Your task to perform on an android device: Set the phone to "Do not disturb". Image 0: 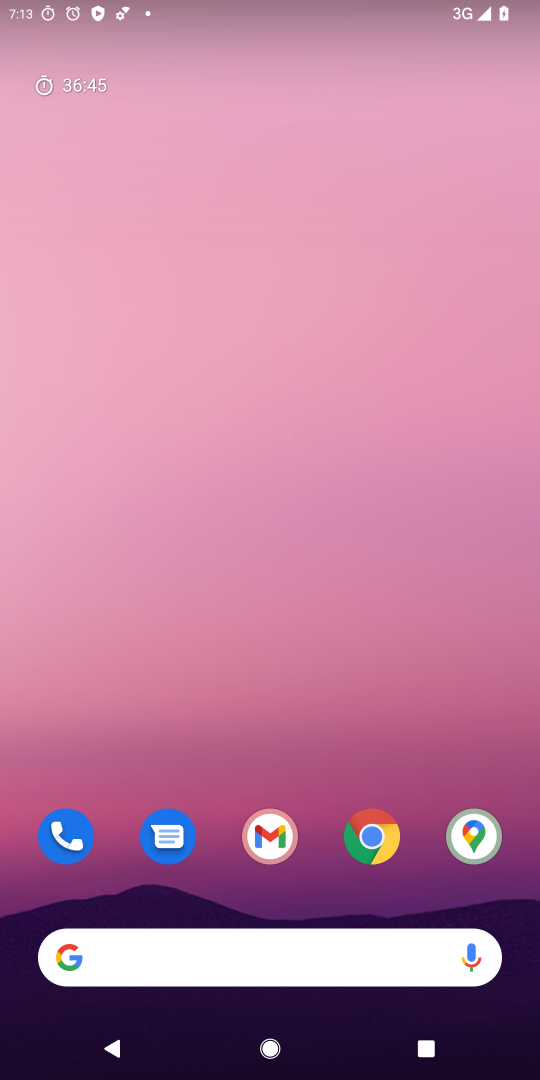
Step 0: drag from (315, 791) to (224, 8)
Your task to perform on an android device: Set the phone to "Do not disturb". Image 1: 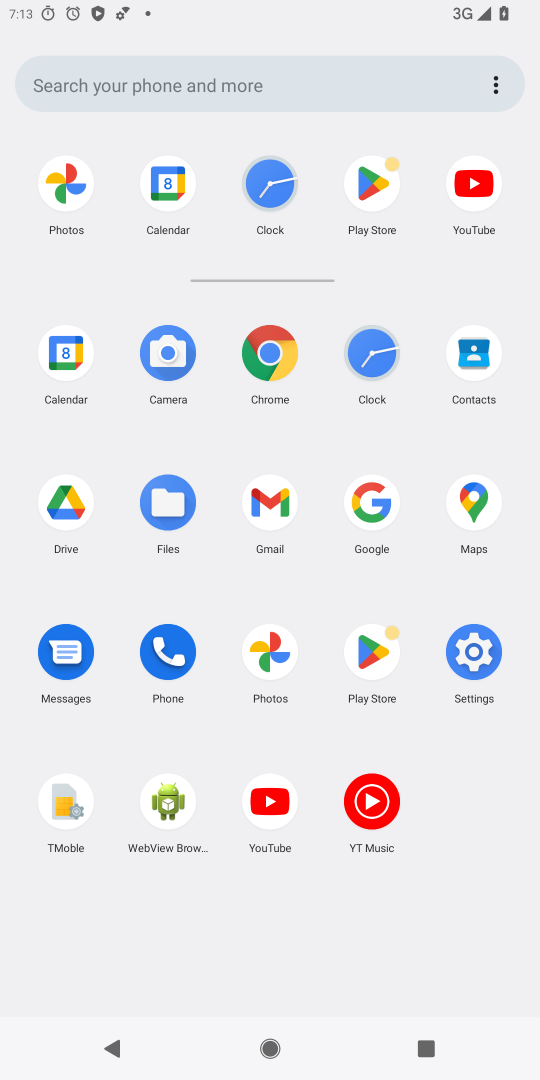
Step 1: click (476, 666)
Your task to perform on an android device: Set the phone to "Do not disturb". Image 2: 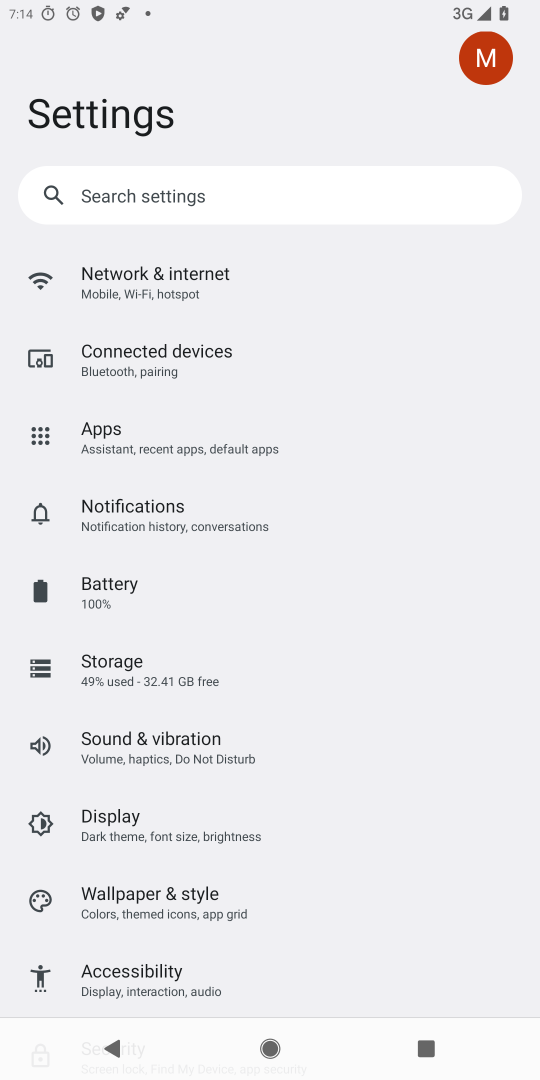
Step 2: click (236, 746)
Your task to perform on an android device: Set the phone to "Do not disturb". Image 3: 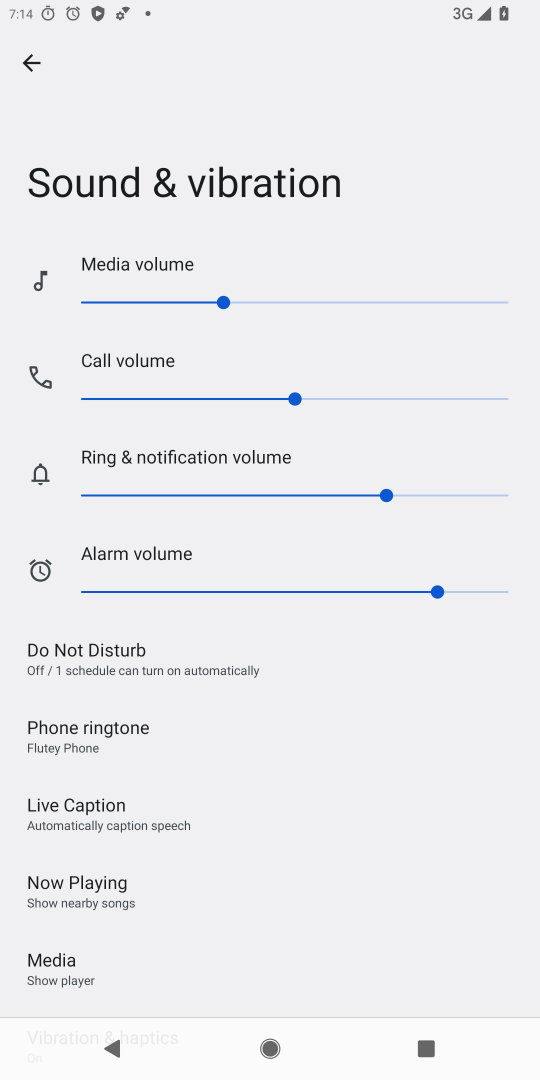
Step 3: click (185, 660)
Your task to perform on an android device: Set the phone to "Do not disturb". Image 4: 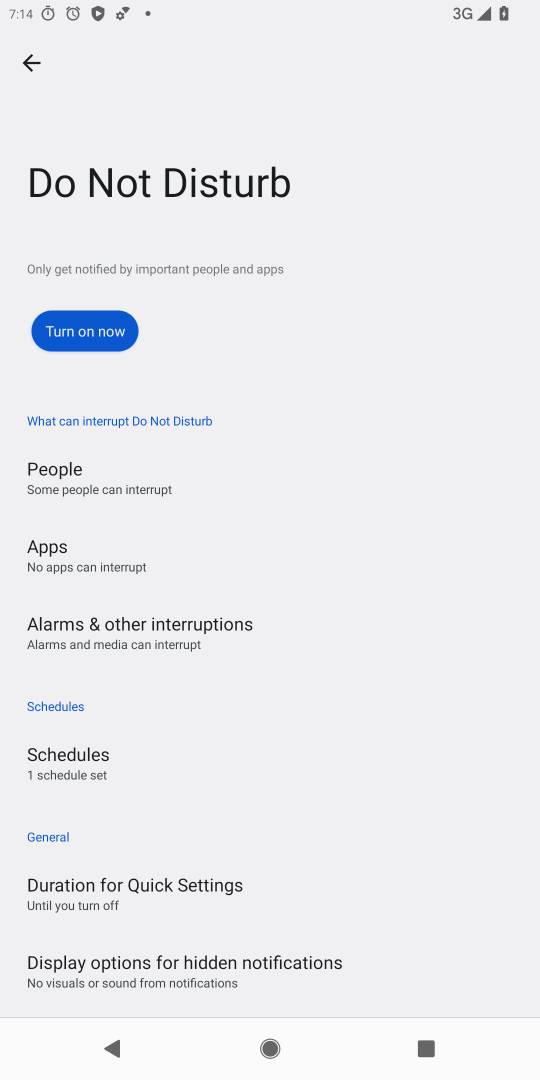
Step 4: click (120, 349)
Your task to perform on an android device: Set the phone to "Do not disturb". Image 5: 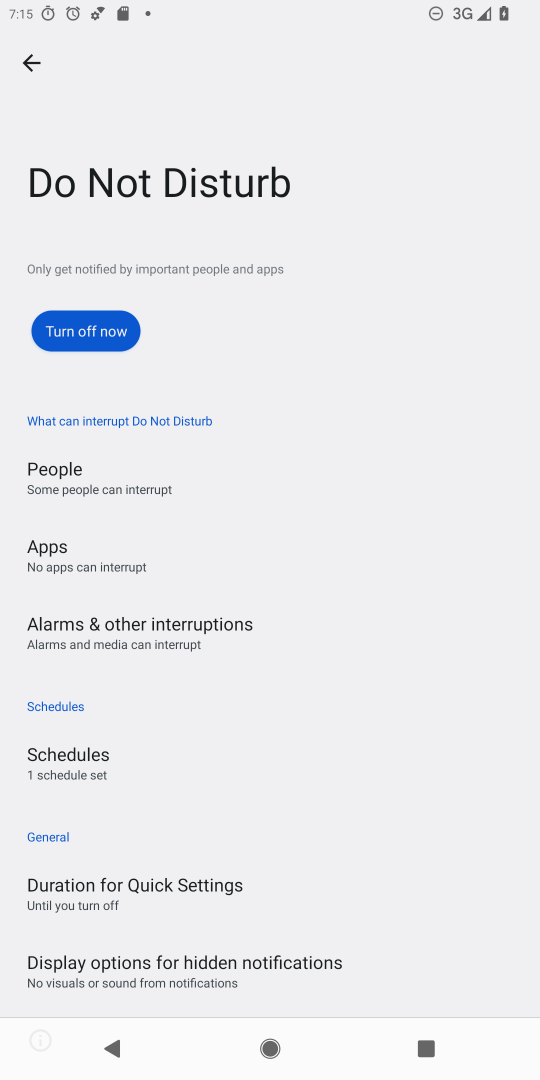
Step 5: task complete